Your task to perform on an android device: change the clock display to analog Image 0: 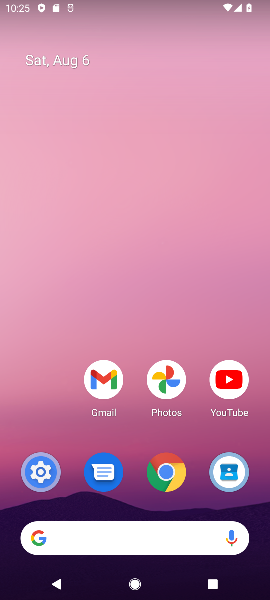
Step 0: drag from (66, 209) to (88, 171)
Your task to perform on an android device: change the clock display to analog Image 1: 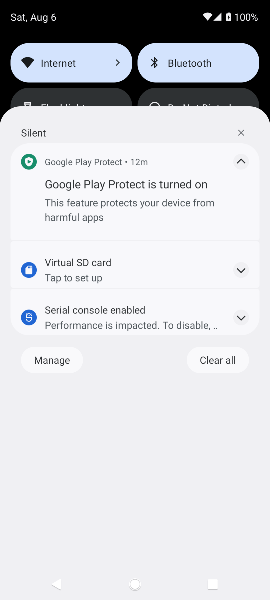
Step 1: drag from (148, 371) to (91, 132)
Your task to perform on an android device: change the clock display to analog Image 2: 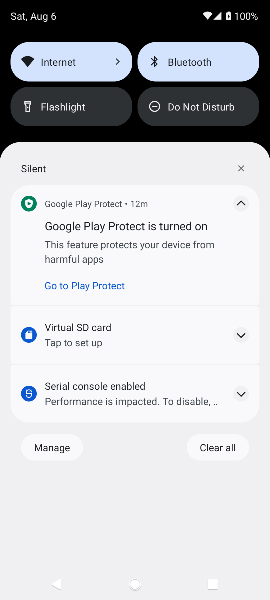
Step 2: drag from (115, 270) to (79, 119)
Your task to perform on an android device: change the clock display to analog Image 3: 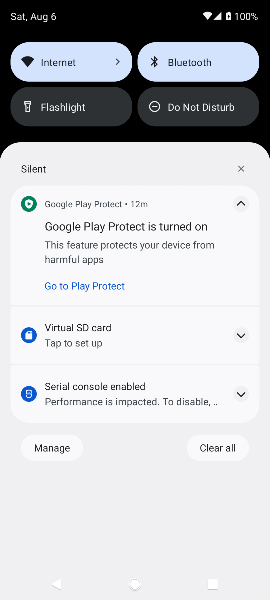
Step 3: press back button
Your task to perform on an android device: change the clock display to analog Image 4: 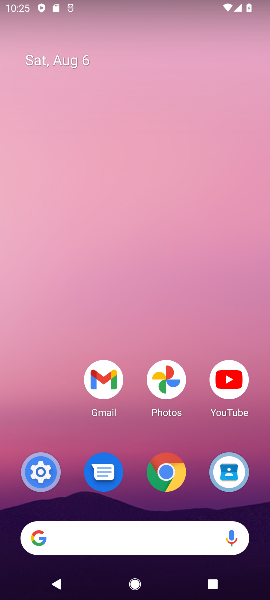
Step 4: click (156, 164)
Your task to perform on an android device: change the clock display to analog Image 5: 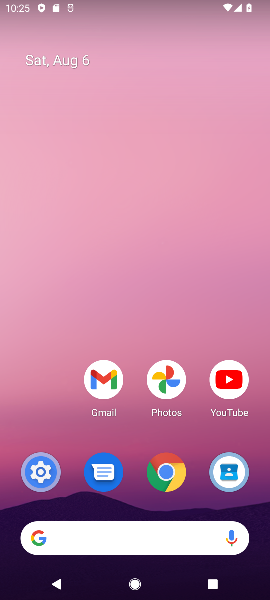
Step 5: drag from (185, 401) to (145, 171)
Your task to perform on an android device: change the clock display to analog Image 6: 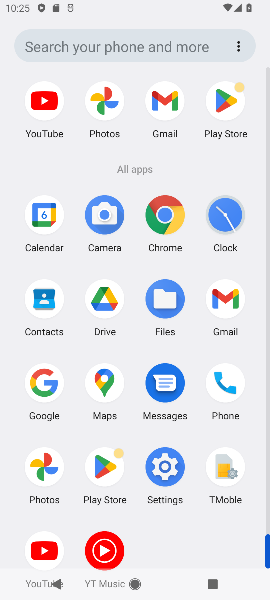
Step 6: click (224, 210)
Your task to perform on an android device: change the clock display to analog Image 7: 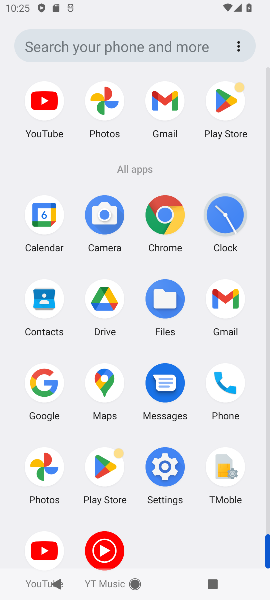
Step 7: click (224, 210)
Your task to perform on an android device: change the clock display to analog Image 8: 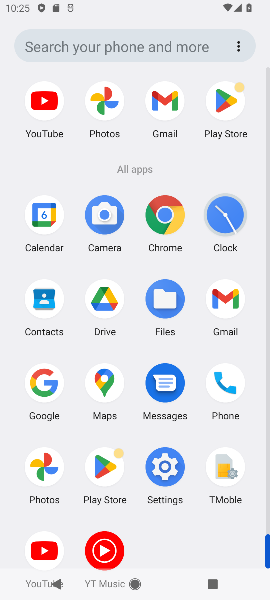
Step 8: click (224, 210)
Your task to perform on an android device: change the clock display to analog Image 9: 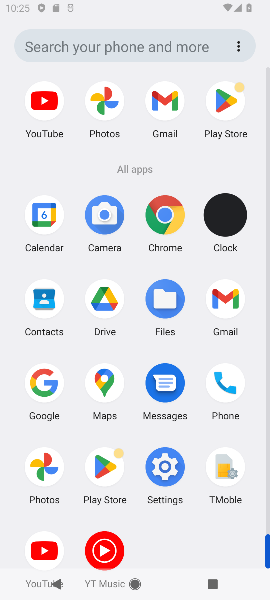
Step 9: click (224, 210)
Your task to perform on an android device: change the clock display to analog Image 10: 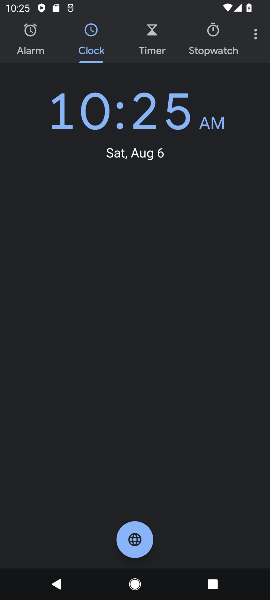
Step 10: click (224, 210)
Your task to perform on an android device: change the clock display to analog Image 11: 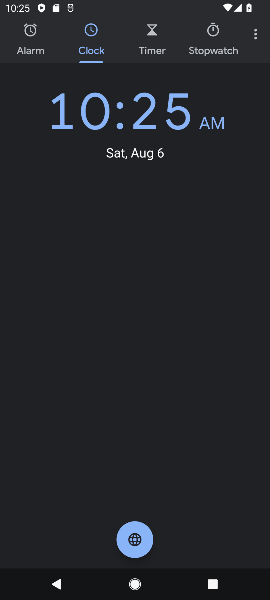
Step 11: click (224, 210)
Your task to perform on an android device: change the clock display to analog Image 12: 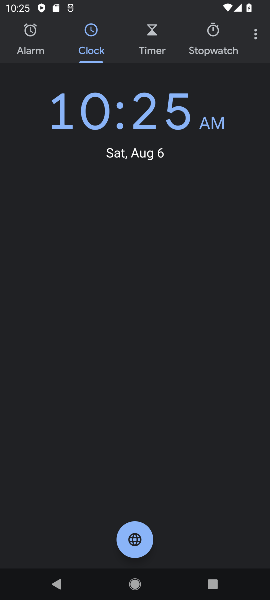
Step 12: click (255, 40)
Your task to perform on an android device: change the clock display to analog Image 13: 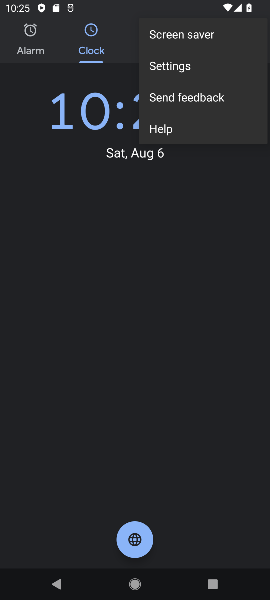
Step 13: click (169, 60)
Your task to perform on an android device: change the clock display to analog Image 14: 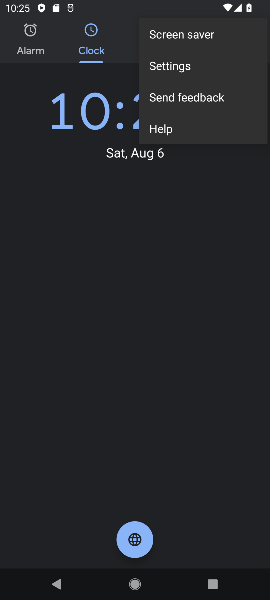
Step 14: click (169, 60)
Your task to perform on an android device: change the clock display to analog Image 15: 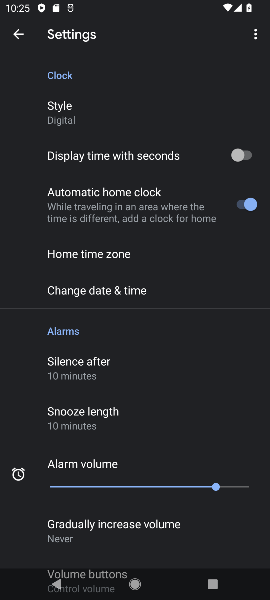
Step 15: click (77, 107)
Your task to perform on an android device: change the clock display to analog Image 16: 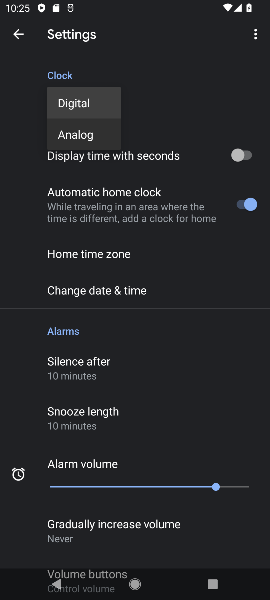
Step 16: click (95, 130)
Your task to perform on an android device: change the clock display to analog Image 17: 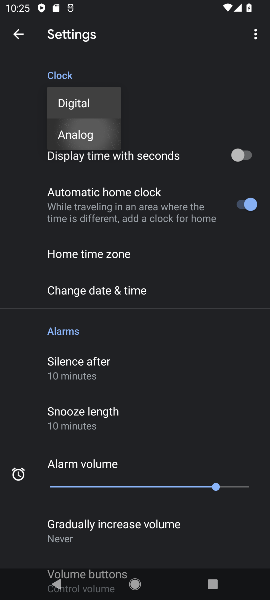
Step 17: click (93, 136)
Your task to perform on an android device: change the clock display to analog Image 18: 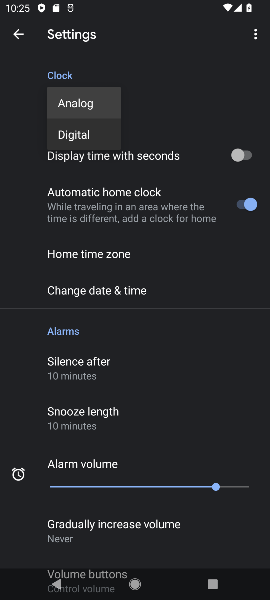
Step 18: click (88, 102)
Your task to perform on an android device: change the clock display to analog Image 19: 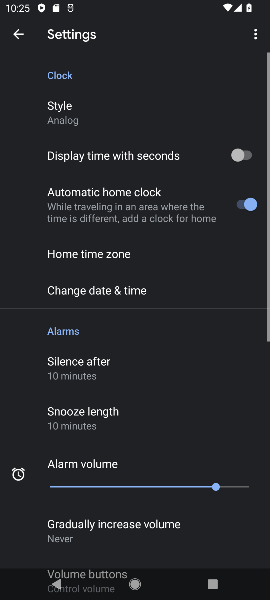
Step 19: task complete